Your task to perform on an android device: Do I have any events today? Image 0: 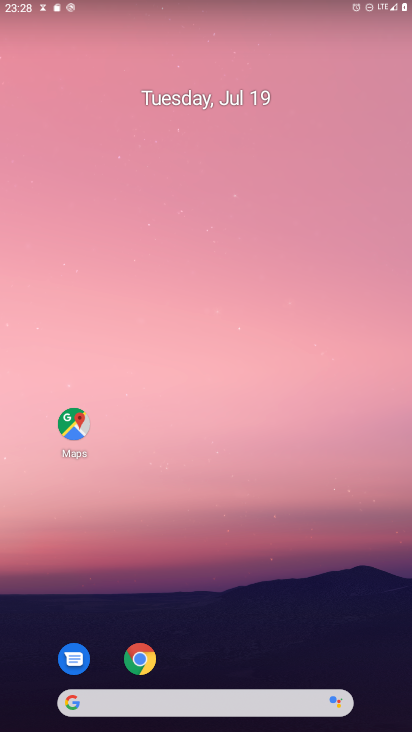
Step 0: drag from (215, 579) to (181, 264)
Your task to perform on an android device: Do I have any events today? Image 1: 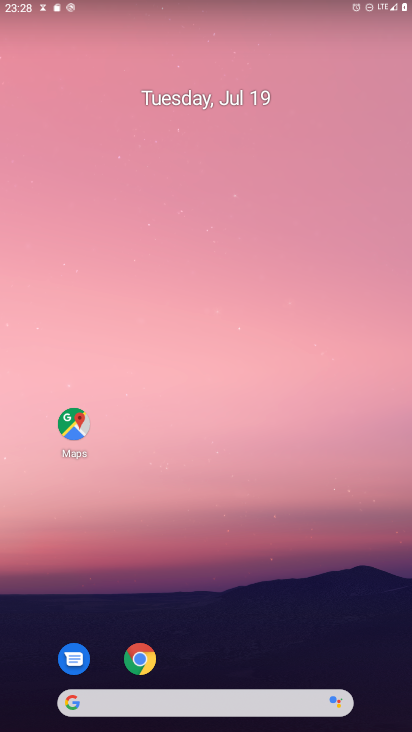
Step 1: drag from (251, 662) to (251, 210)
Your task to perform on an android device: Do I have any events today? Image 2: 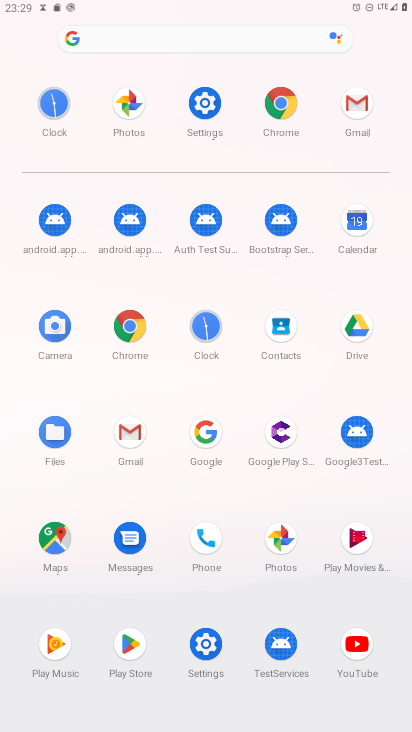
Step 2: click (356, 215)
Your task to perform on an android device: Do I have any events today? Image 3: 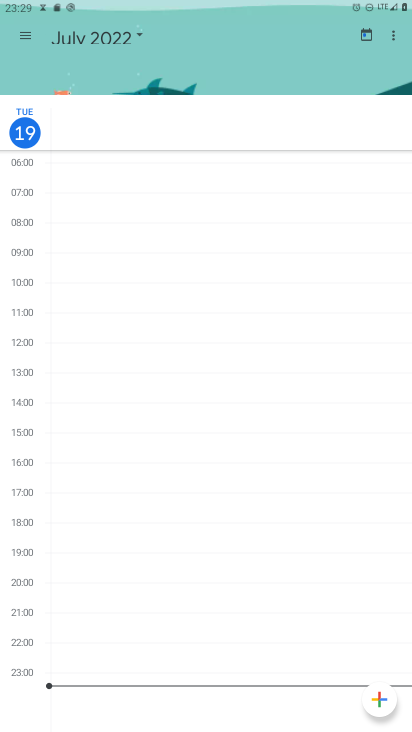
Step 3: click (36, 30)
Your task to perform on an android device: Do I have any events today? Image 4: 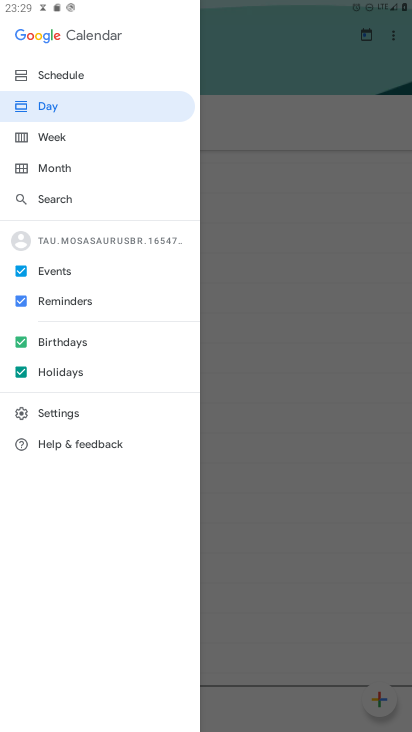
Step 4: click (79, 167)
Your task to perform on an android device: Do I have any events today? Image 5: 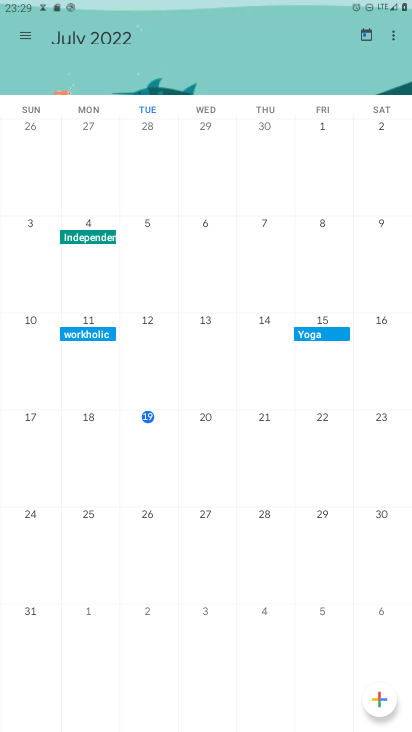
Step 5: click (194, 425)
Your task to perform on an android device: Do I have any events today? Image 6: 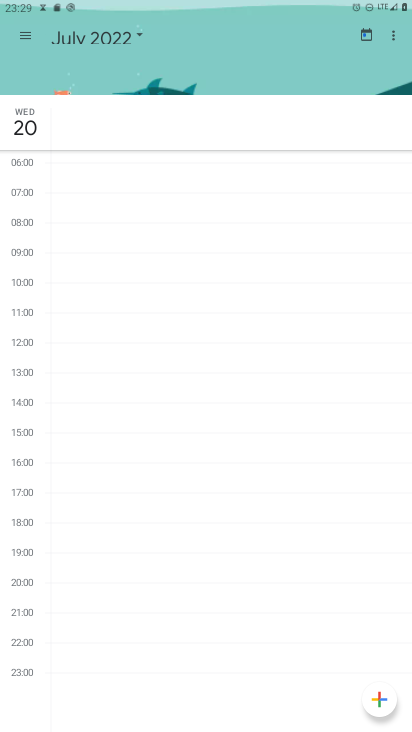
Step 6: task complete